Your task to perform on an android device: Find coffee shops on Maps Image 0: 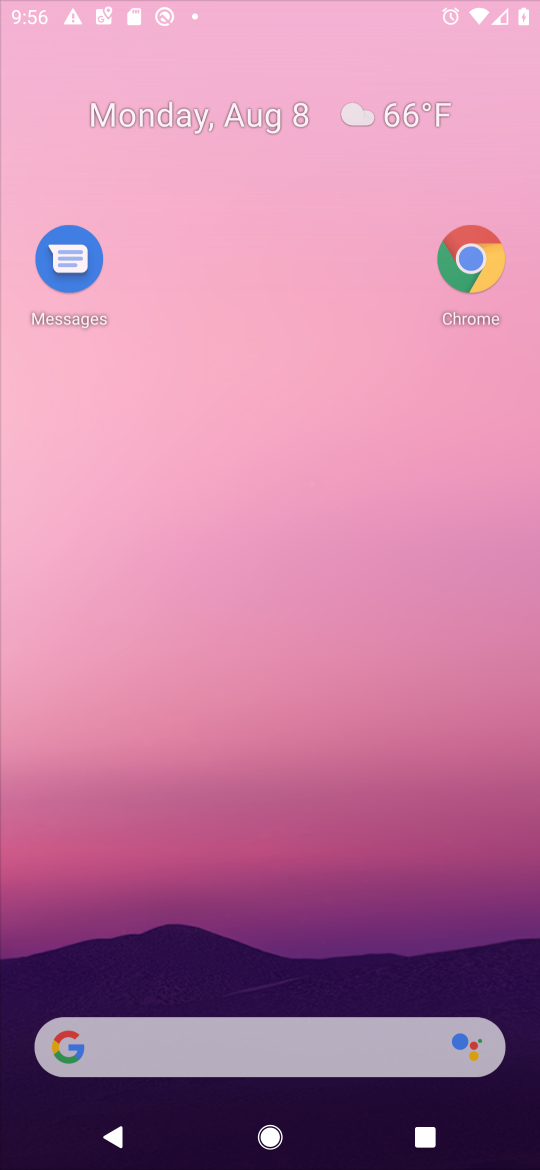
Step 0: click (510, 10)
Your task to perform on an android device: Find coffee shops on Maps Image 1: 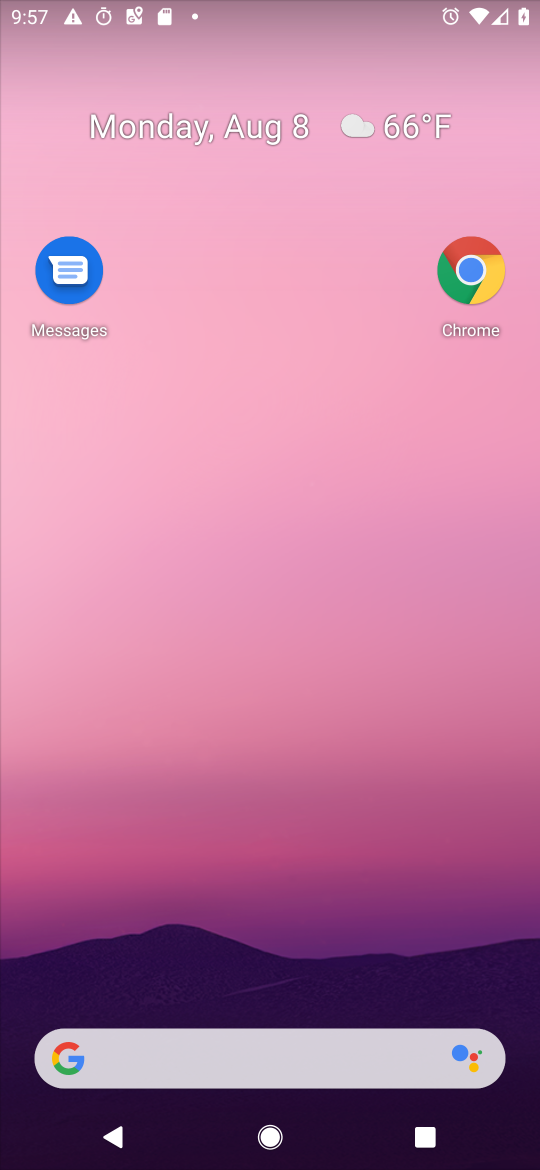
Step 1: drag from (272, 1010) to (403, 16)
Your task to perform on an android device: Find coffee shops on Maps Image 2: 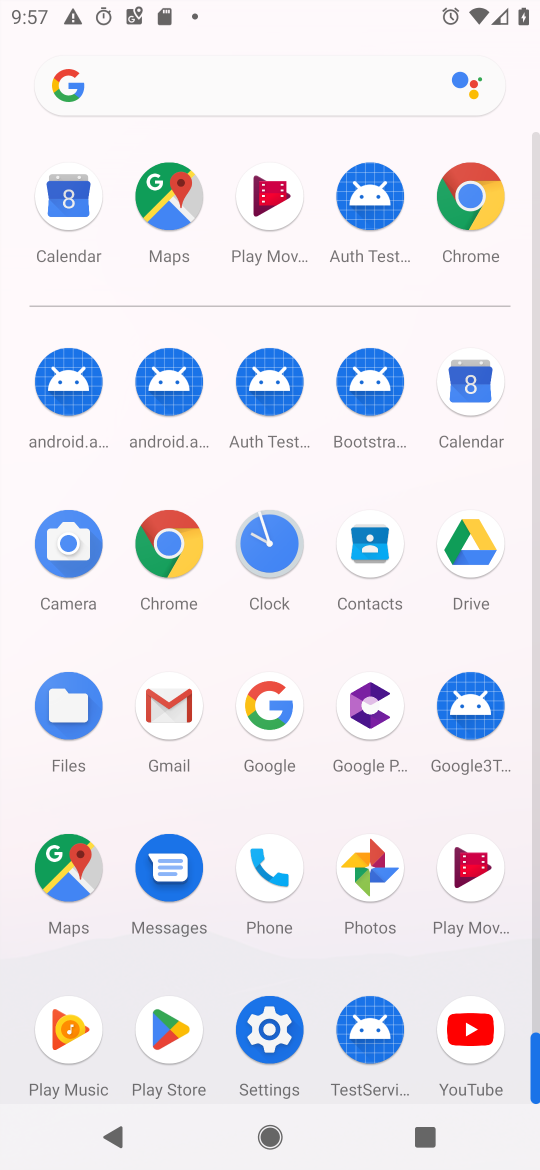
Step 2: click (59, 862)
Your task to perform on an android device: Find coffee shops on Maps Image 3: 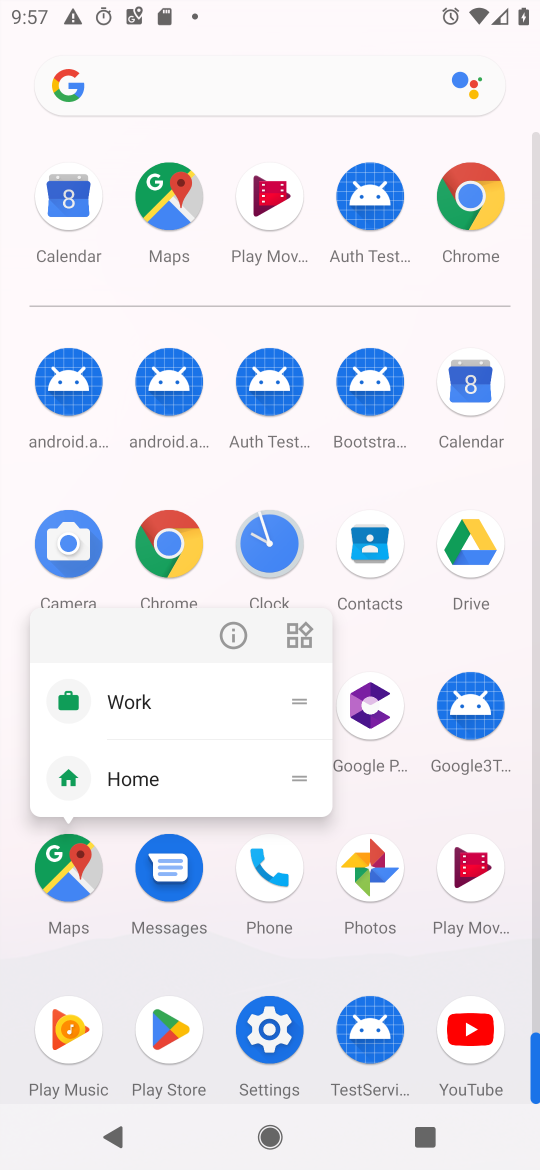
Step 3: click (236, 621)
Your task to perform on an android device: Find coffee shops on Maps Image 4: 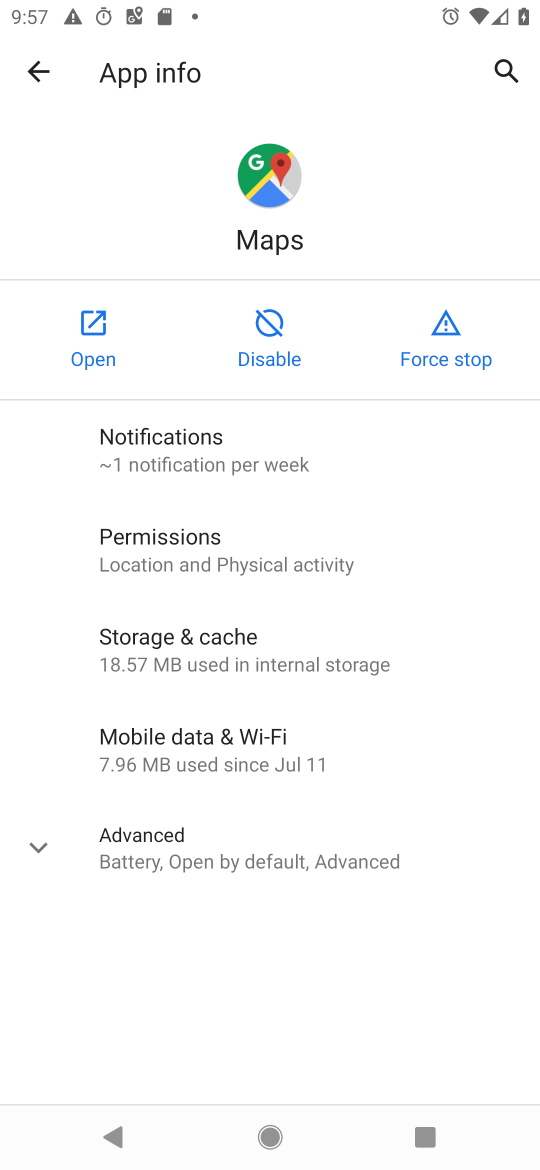
Step 4: click (31, 322)
Your task to perform on an android device: Find coffee shops on Maps Image 5: 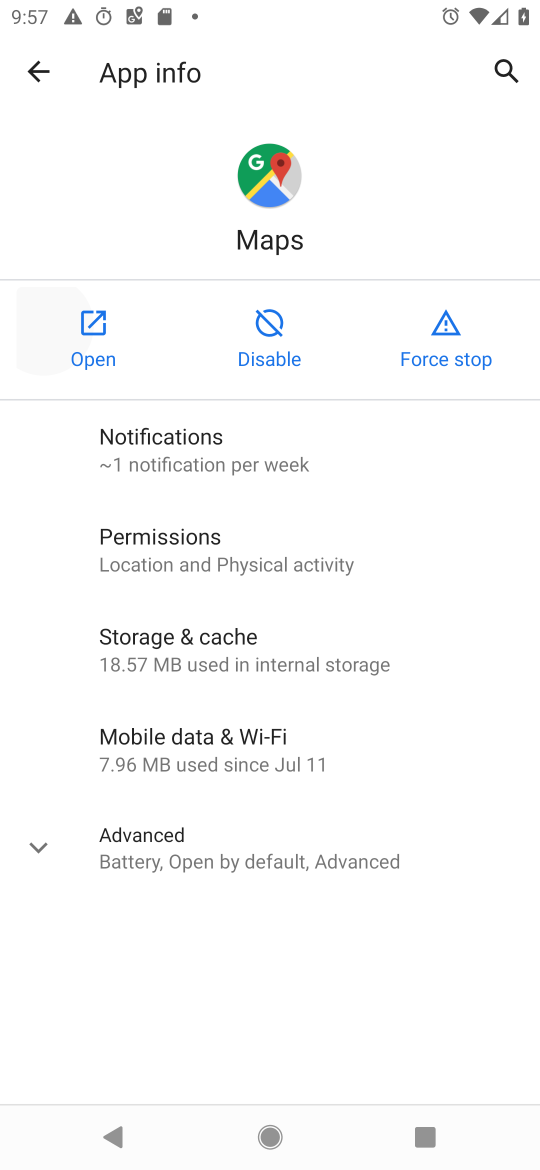
Step 5: click (95, 357)
Your task to perform on an android device: Find coffee shops on Maps Image 6: 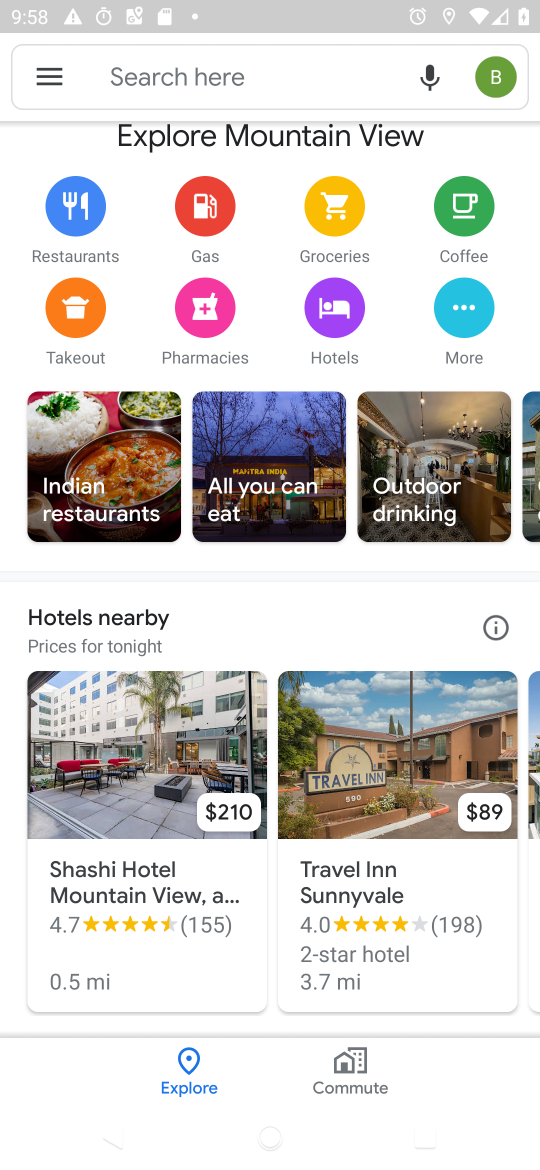
Step 6: drag from (288, 942) to (539, 1048)
Your task to perform on an android device: Find coffee shops on Maps Image 7: 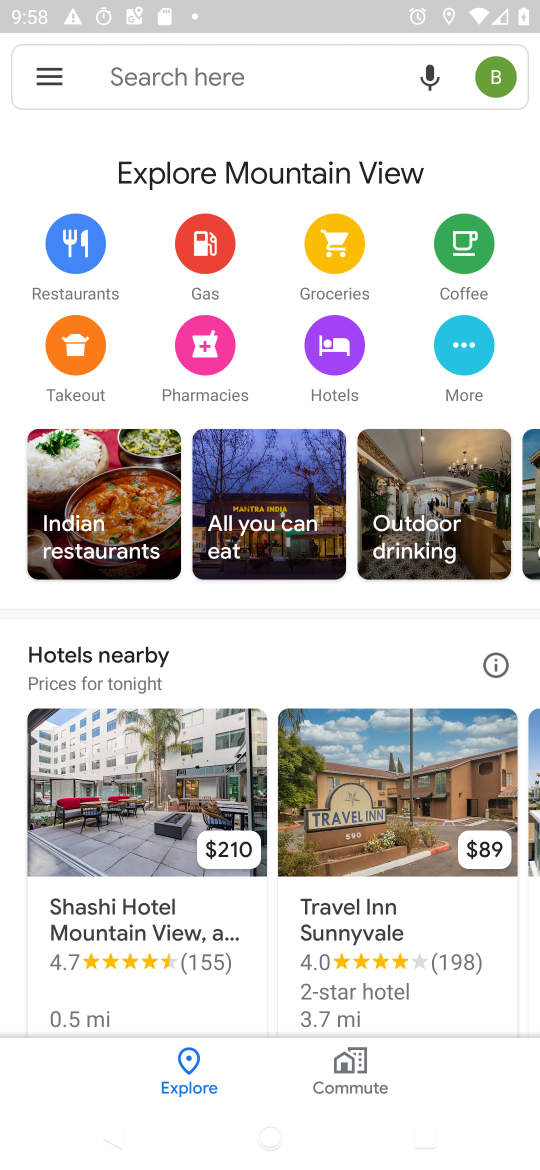
Step 7: drag from (265, 947) to (308, 406)
Your task to perform on an android device: Find coffee shops on Maps Image 8: 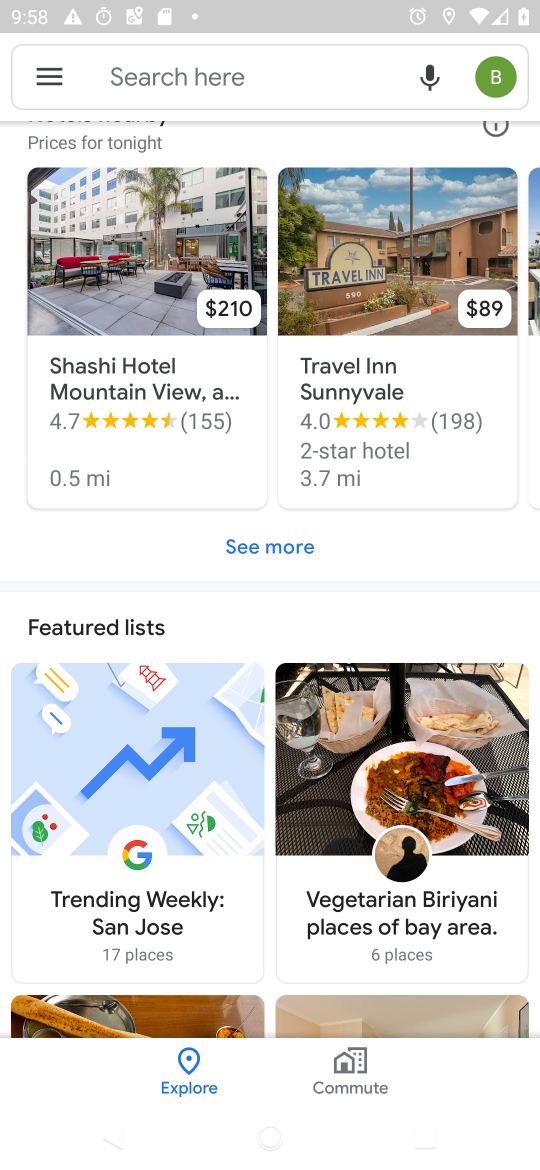
Step 8: click (186, 84)
Your task to perform on an android device: Find coffee shops on Maps Image 9: 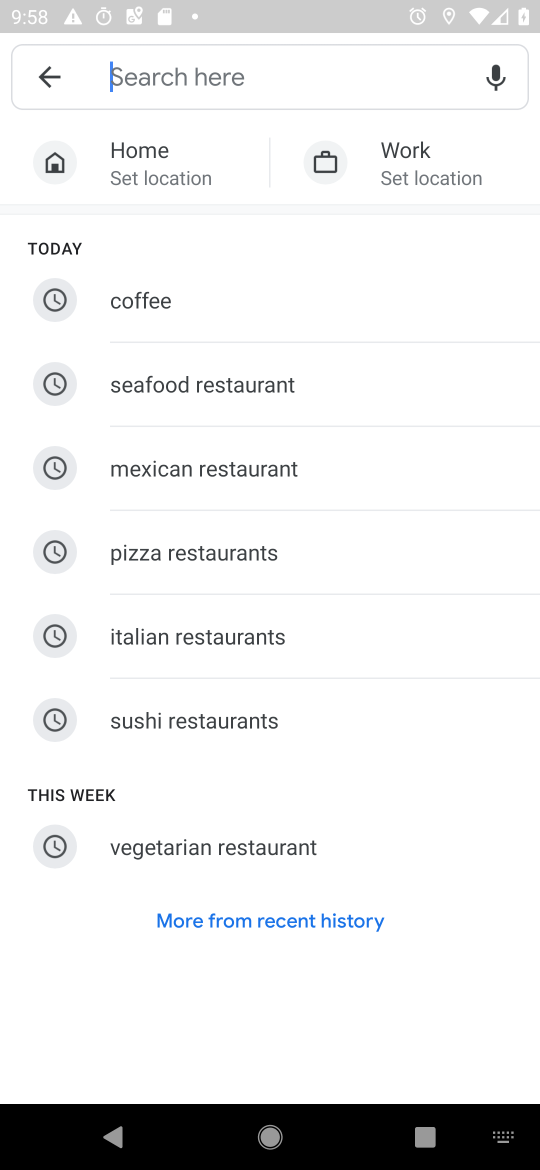
Step 9: click (192, 293)
Your task to perform on an android device: Find coffee shops on Maps Image 10: 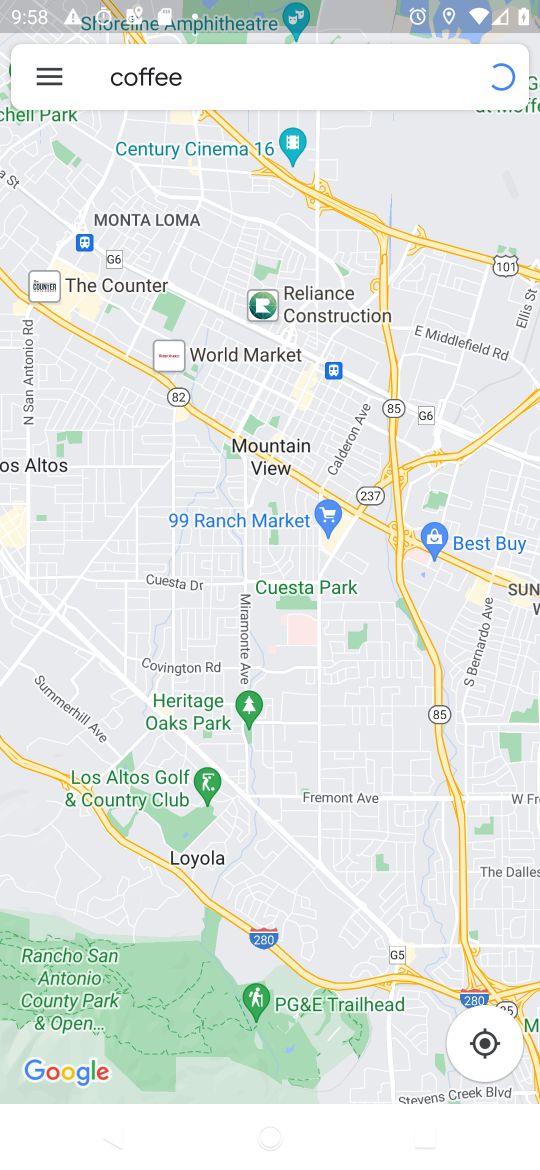
Step 10: task complete